Your task to perform on an android device: Turn on the flashlight Image 0: 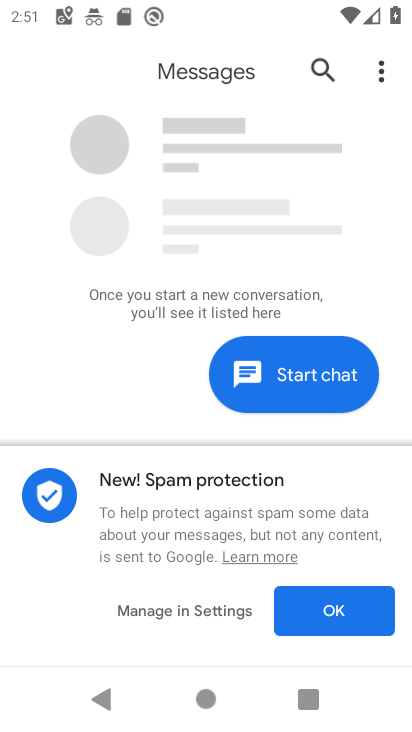
Step 0: press home button
Your task to perform on an android device: Turn on the flashlight Image 1: 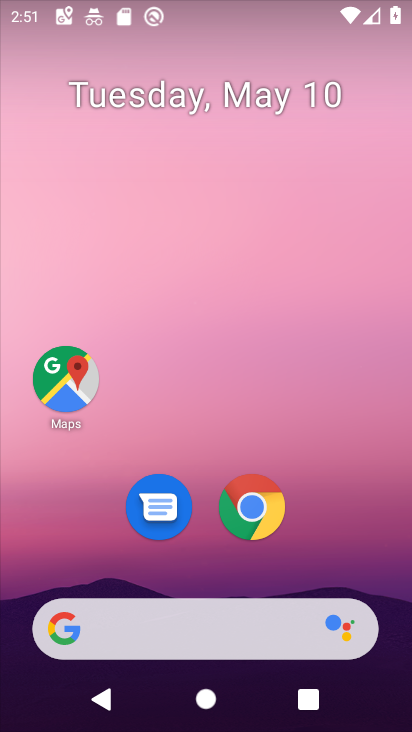
Step 1: drag from (202, 579) to (244, 88)
Your task to perform on an android device: Turn on the flashlight Image 2: 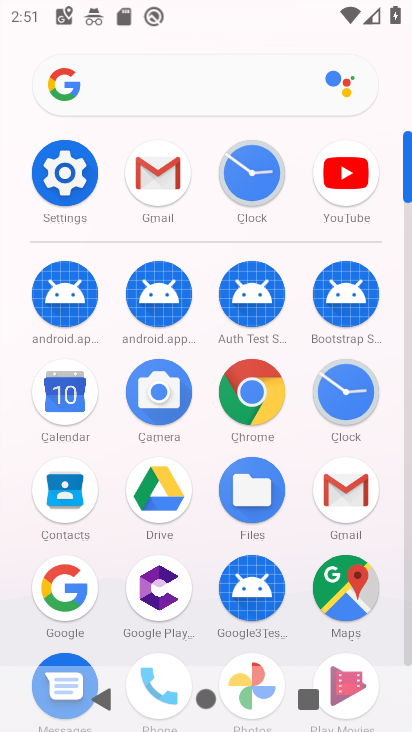
Step 2: click (68, 174)
Your task to perform on an android device: Turn on the flashlight Image 3: 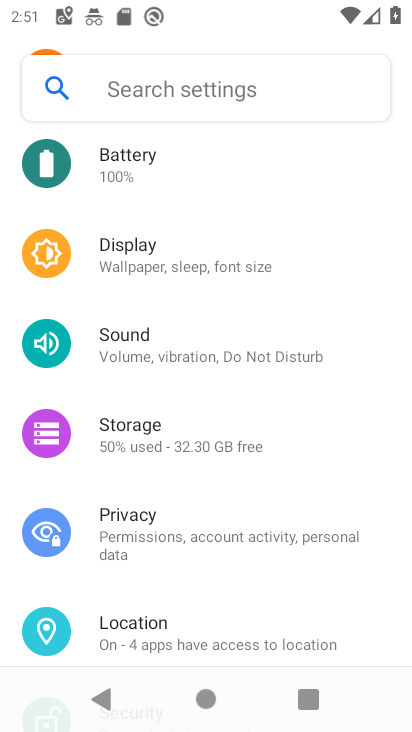
Step 3: click (212, 263)
Your task to perform on an android device: Turn on the flashlight Image 4: 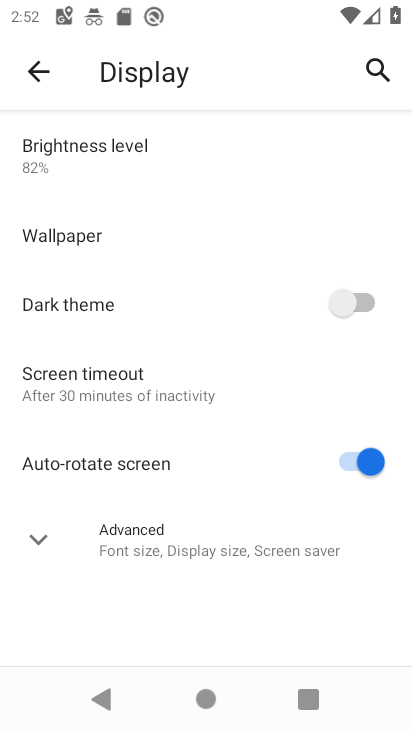
Step 4: task complete